Your task to perform on an android device: Open Yahoo.com Image 0: 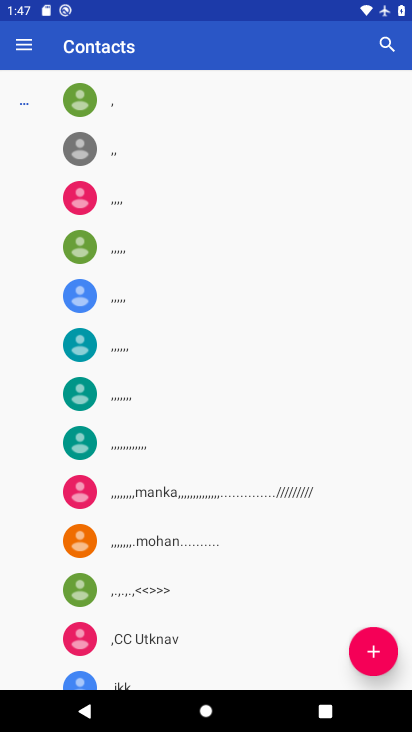
Step 0: press home button
Your task to perform on an android device: Open Yahoo.com Image 1: 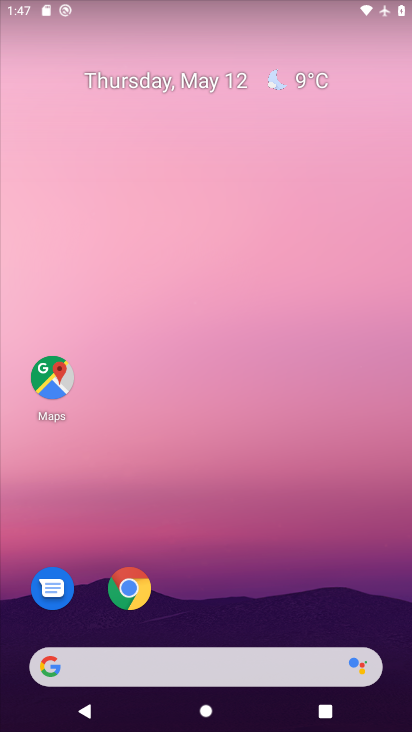
Step 1: drag from (327, 473) to (390, 76)
Your task to perform on an android device: Open Yahoo.com Image 2: 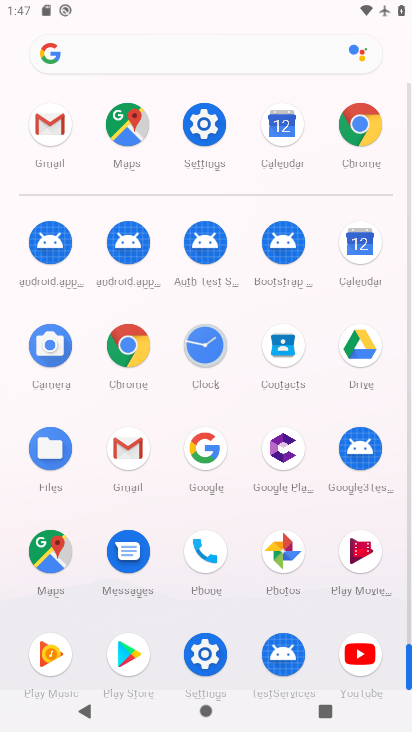
Step 2: click (375, 122)
Your task to perform on an android device: Open Yahoo.com Image 3: 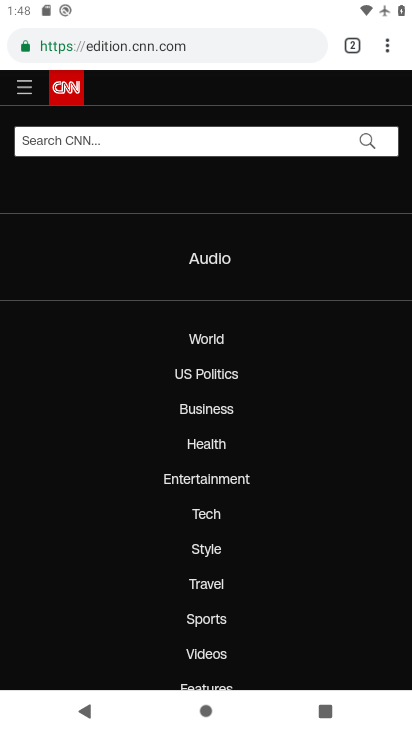
Step 3: click (205, 41)
Your task to perform on an android device: Open Yahoo.com Image 4: 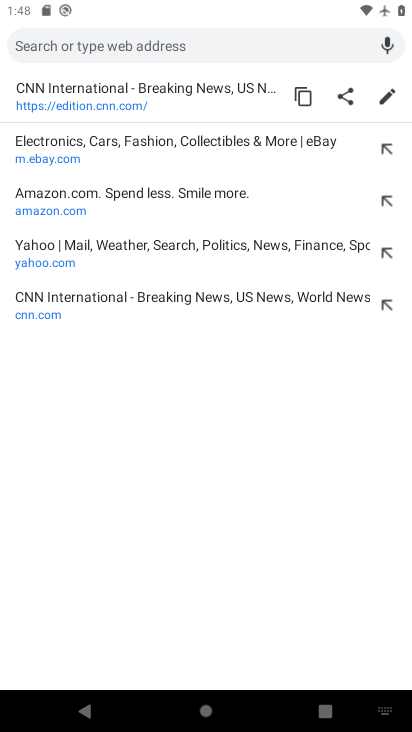
Step 4: click (64, 266)
Your task to perform on an android device: Open Yahoo.com Image 5: 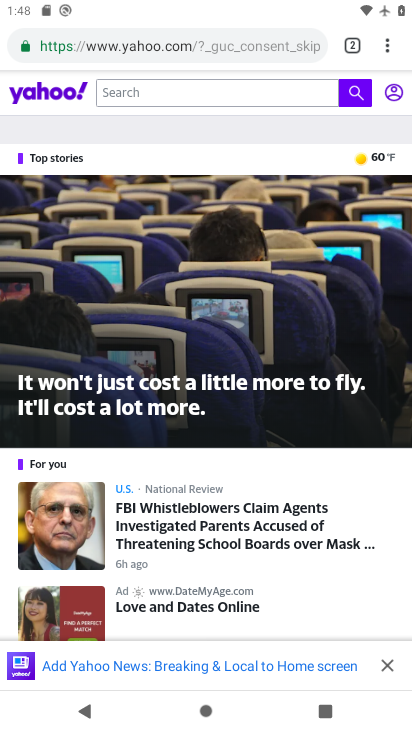
Step 5: task complete